Your task to perform on an android device: Go to Maps Image 0: 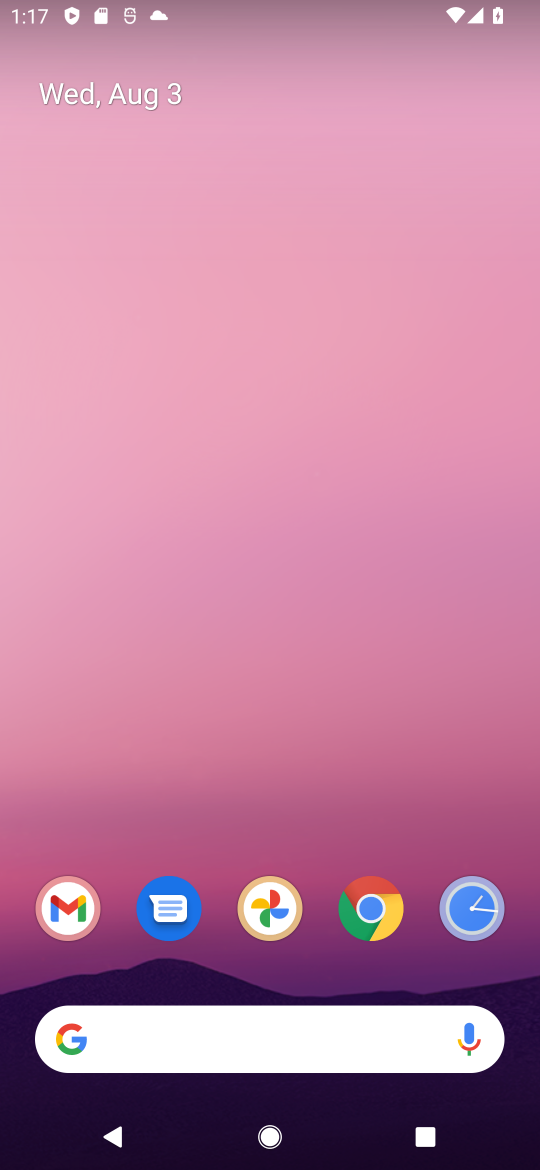
Step 0: drag from (211, 814) to (150, 51)
Your task to perform on an android device: Go to Maps Image 1: 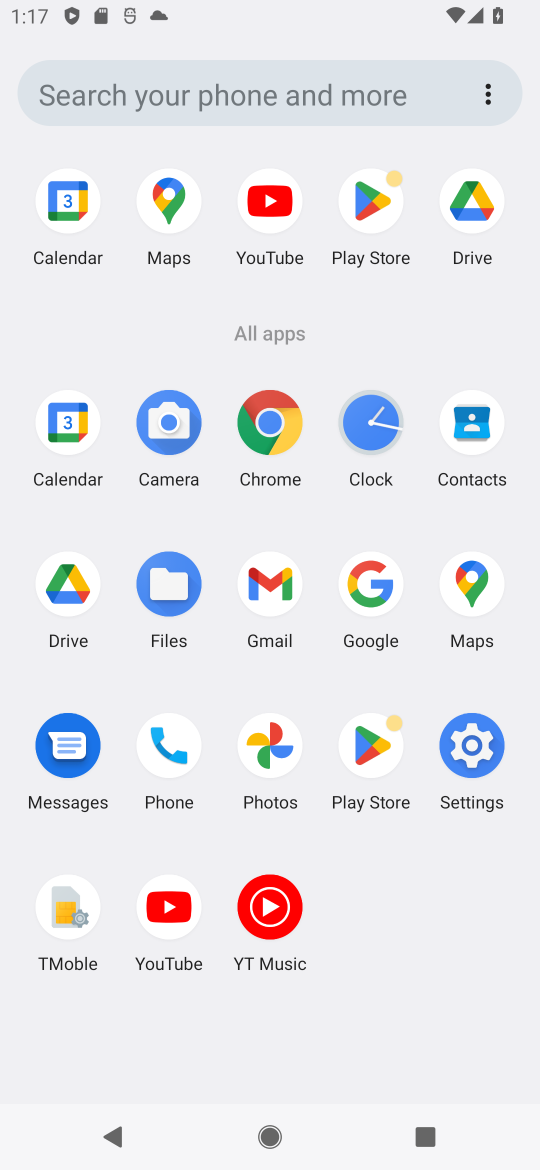
Step 1: click (169, 211)
Your task to perform on an android device: Go to Maps Image 2: 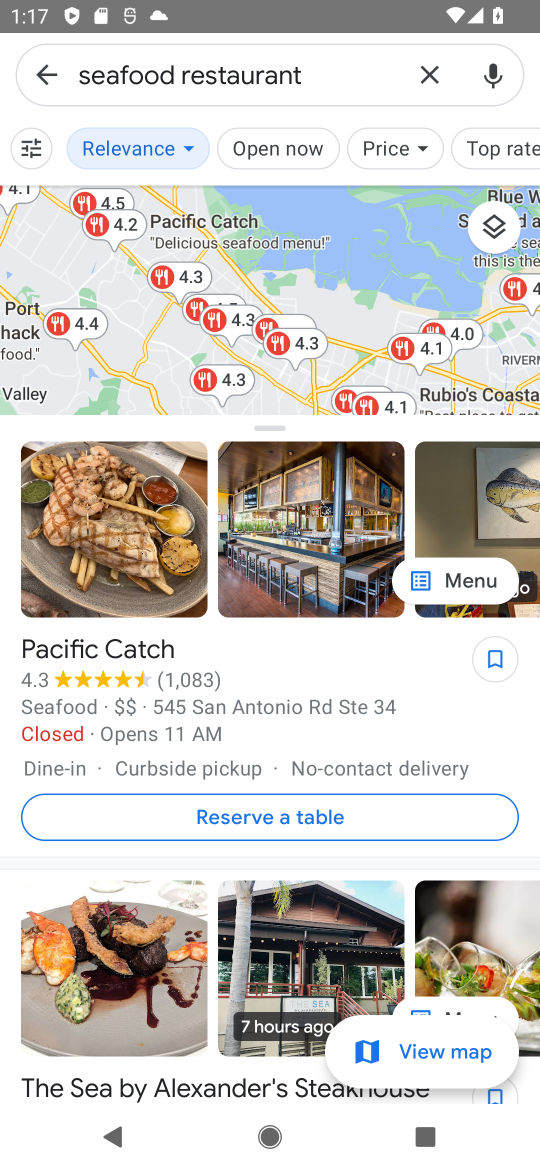
Step 2: task complete